Your task to perform on an android device: Open calendar and show me the third week of next month Image 0: 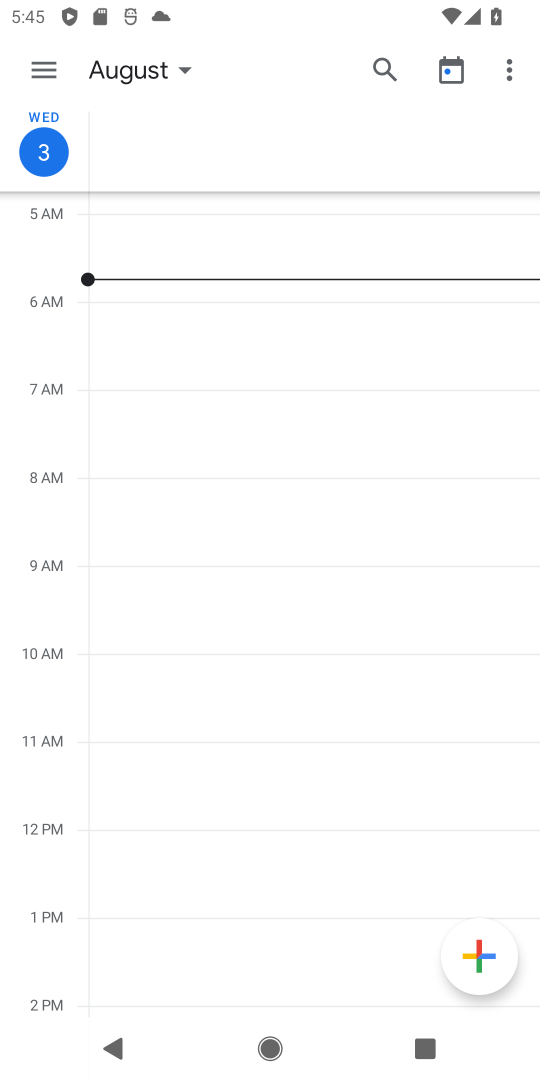
Step 0: click (170, 57)
Your task to perform on an android device: Open calendar and show me the third week of next month Image 1: 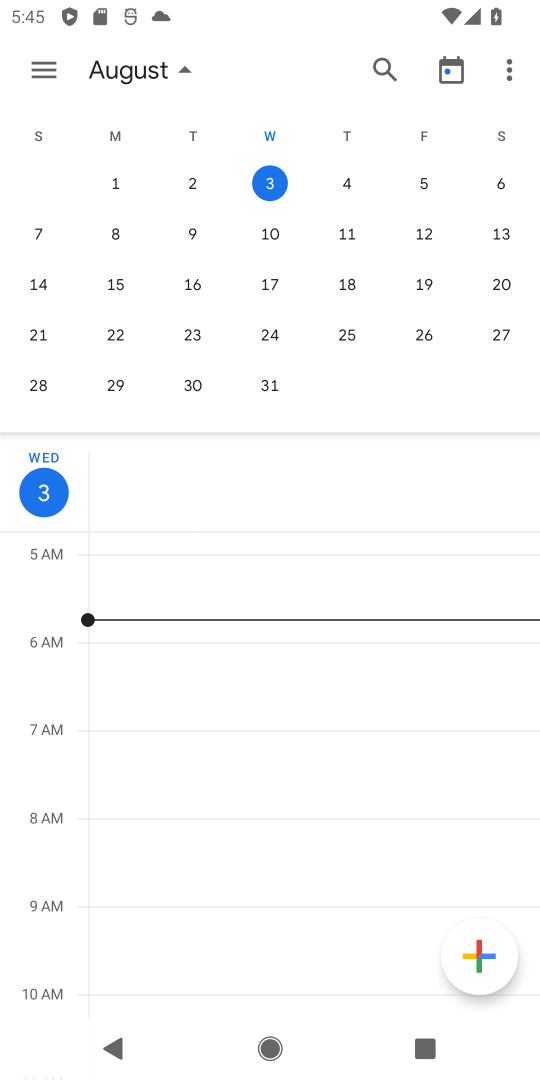
Step 1: drag from (449, 282) to (56, 310)
Your task to perform on an android device: Open calendar and show me the third week of next month Image 2: 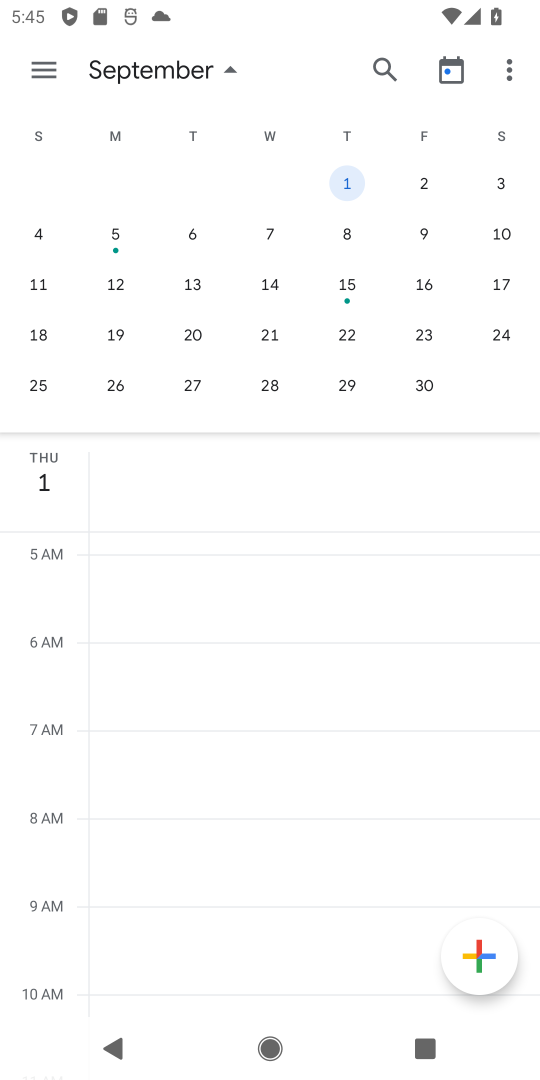
Step 2: click (119, 281)
Your task to perform on an android device: Open calendar and show me the third week of next month Image 3: 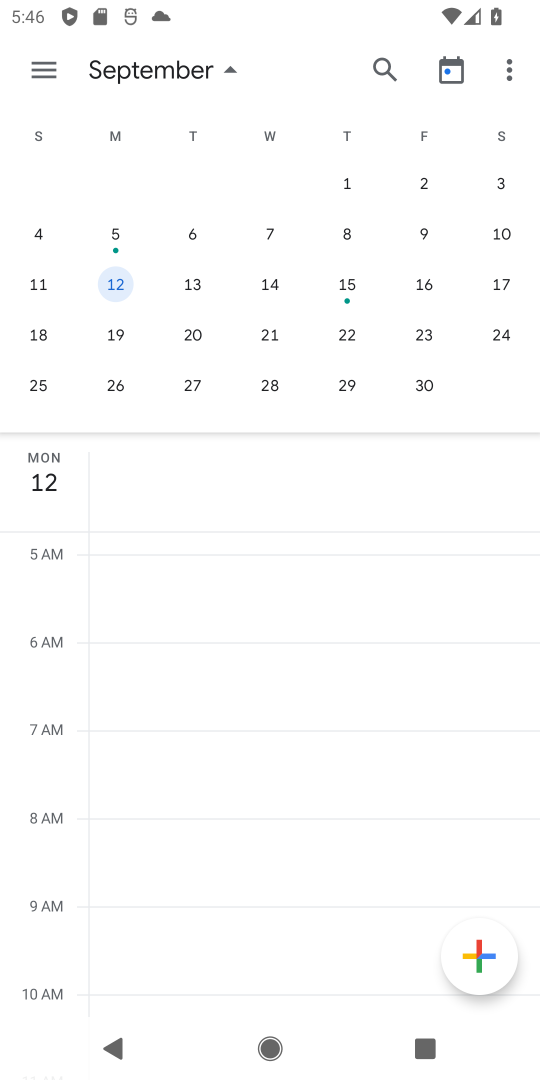
Step 3: task complete